Your task to perform on an android device: move an email to a new category in the gmail app Image 0: 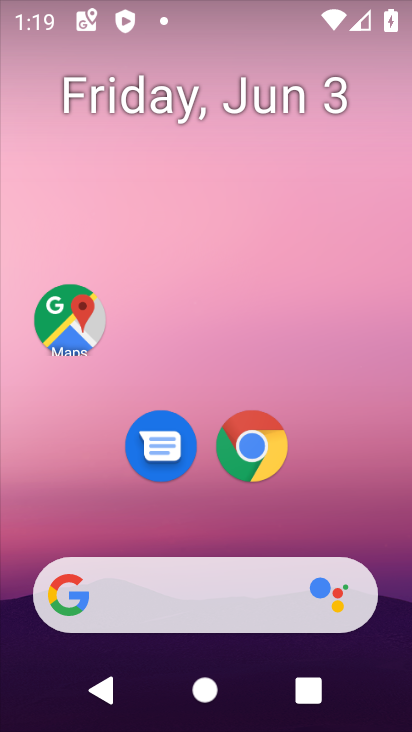
Step 0: drag from (242, 427) to (326, 1)
Your task to perform on an android device: move an email to a new category in the gmail app Image 1: 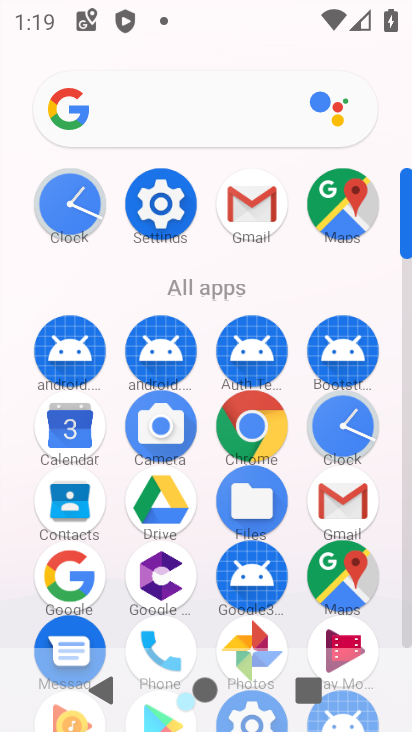
Step 1: click (257, 214)
Your task to perform on an android device: move an email to a new category in the gmail app Image 2: 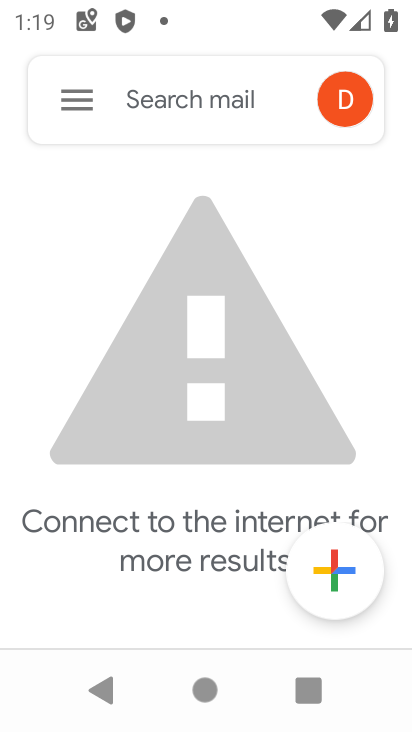
Step 2: click (73, 106)
Your task to perform on an android device: move an email to a new category in the gmail app Image 3: 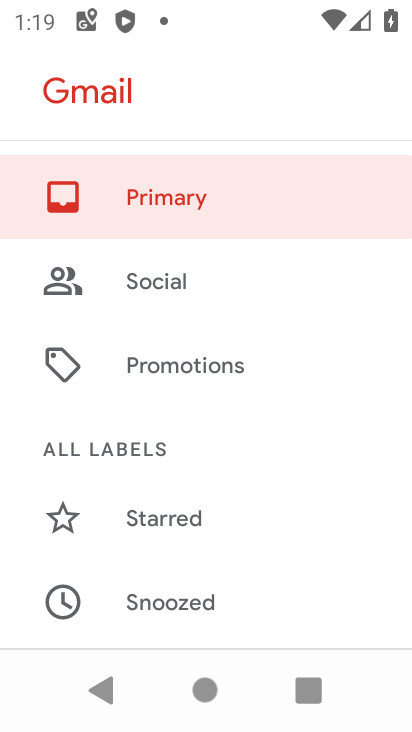
Step 3: drag from (253, 548) to (266, 141)
Your task to perform on an android device: move an email to a new category in the gmail app Image 4: 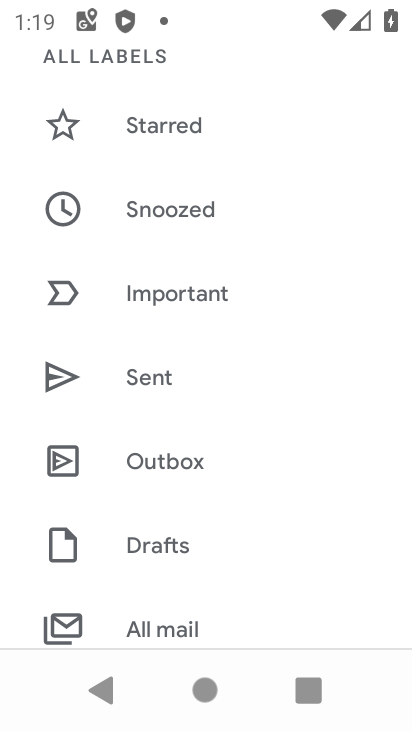
Step 4: click (200, 634)
Your task to perform on an android device: move an email to a new category in the gmail app Image 5: 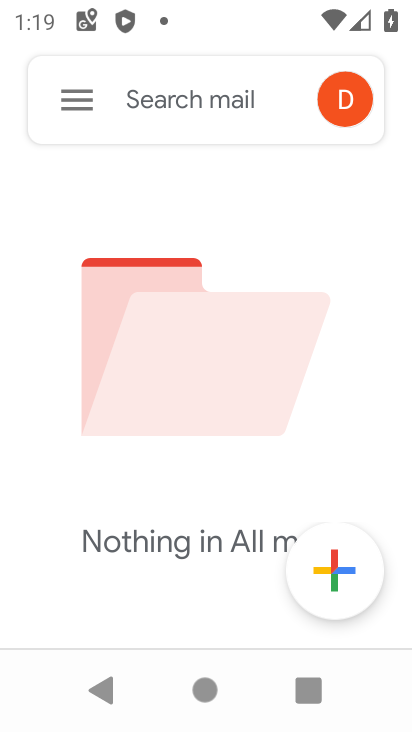
Step 5: task complete